Your task to perform on an android device: open a bookmark in the chrome app Image 0: 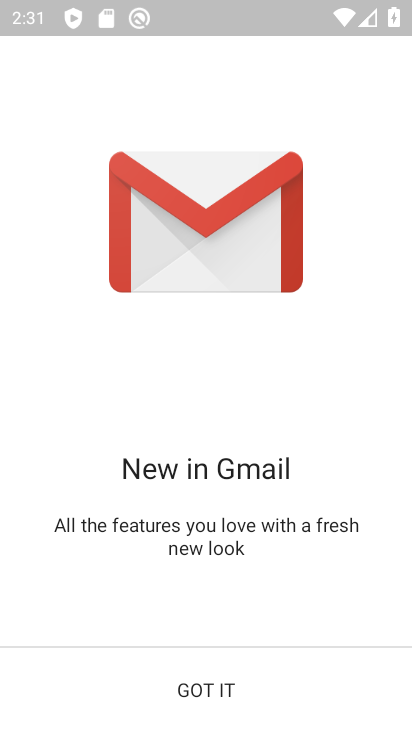
Step 0: click (202, 700)
Your task to perform on an android device: open a bookmark in the chrome app Image 1: 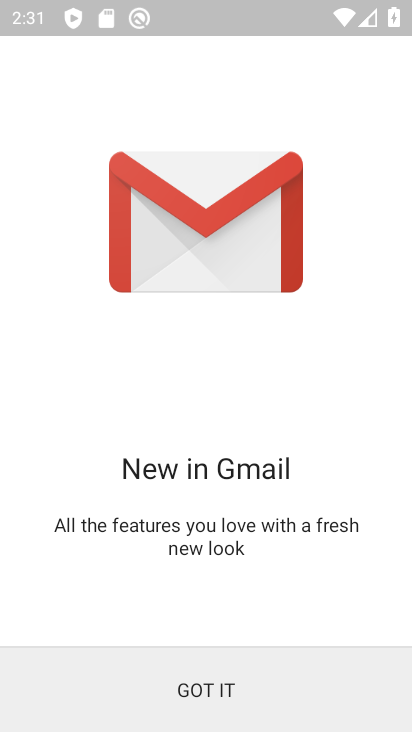
Step 1: click (202, 700)
Your task to perform on an android device: open a bookmark in the chrome app Image 2: 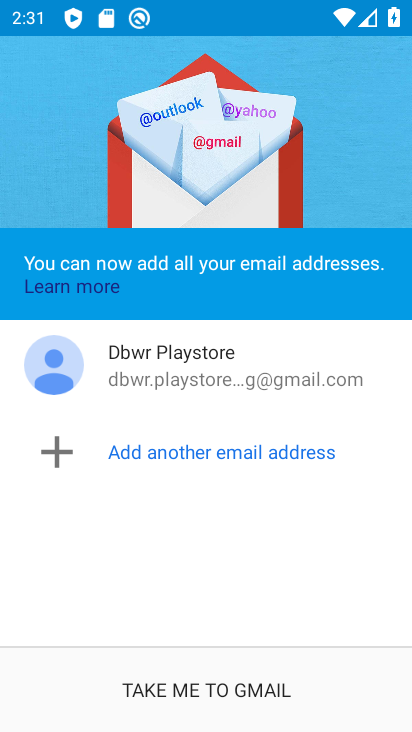
Step 2: press home button
Your task to perform on an android device: open a bookmark in the chrome app Image 3: 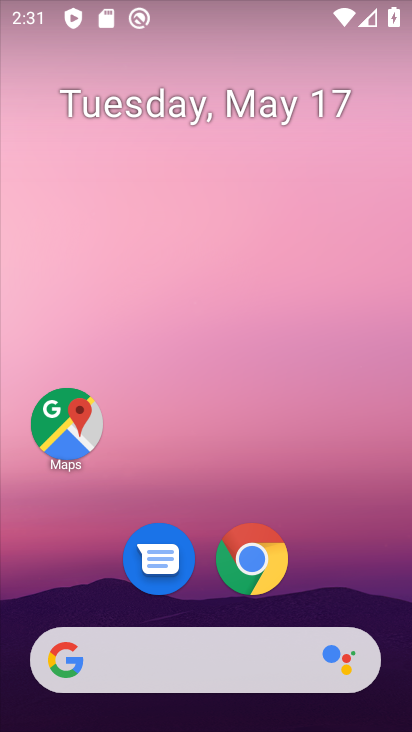
Step 3: click (280, 553)
Your task to perform on an android device: open a bookmark in the chrome app Image 4: 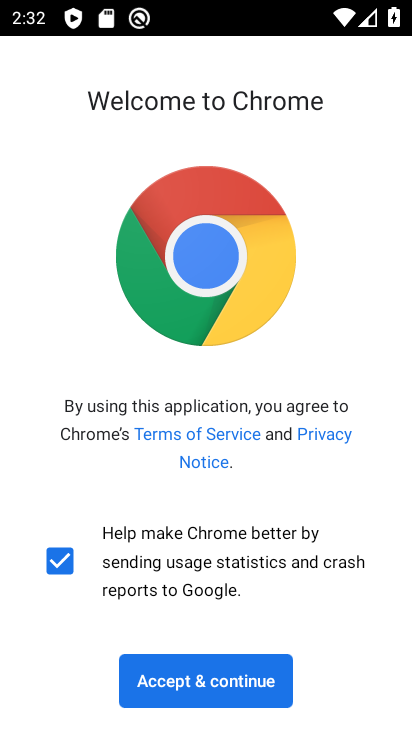
Step 4: click (233, 696)
Your task to perform on an android device: open a bookmark in the chrome app Image 5: 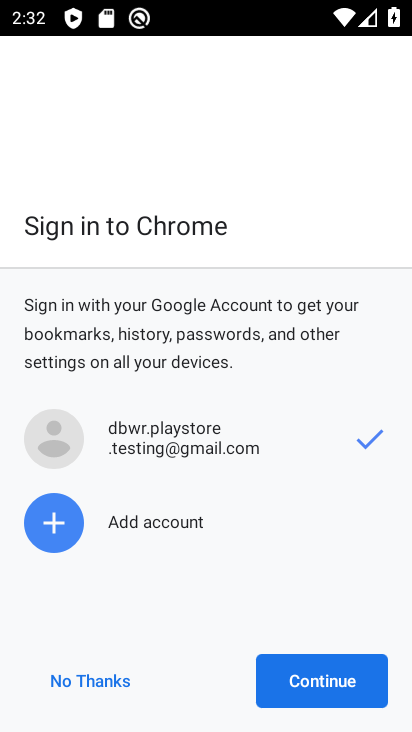
Step 5: click (292, 695)
Your task to perform on an android device: open a bookmark in the chrome app Image 6: 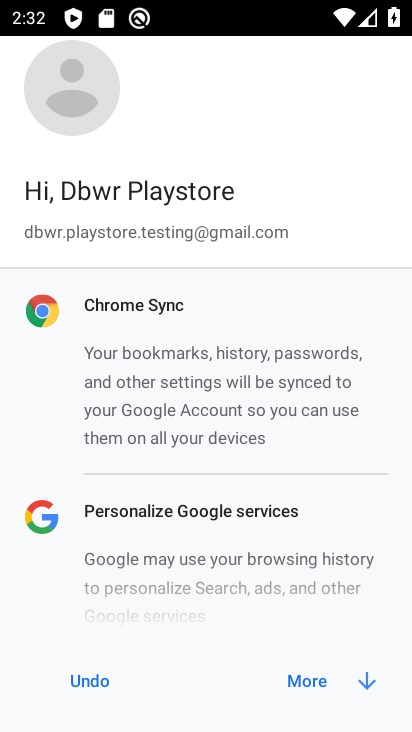
Step 6: click (306, 681)
Your task to perform on an android device: open a bookmark in the chrome app Image 7: 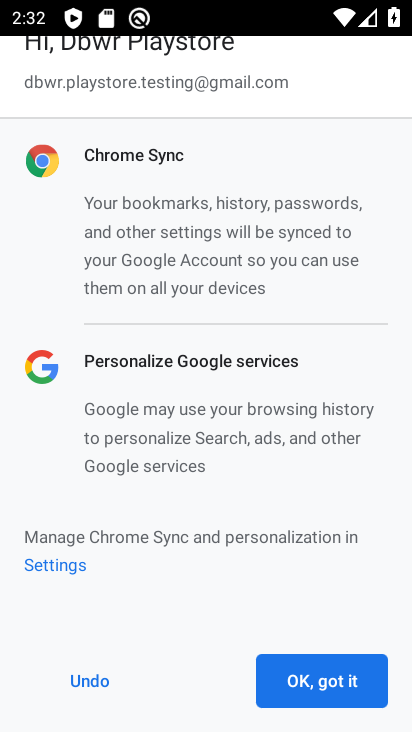
Step 7: click (322, 679)
Your task to perform on an android device: open a bookmark in the chrome app Image 8: 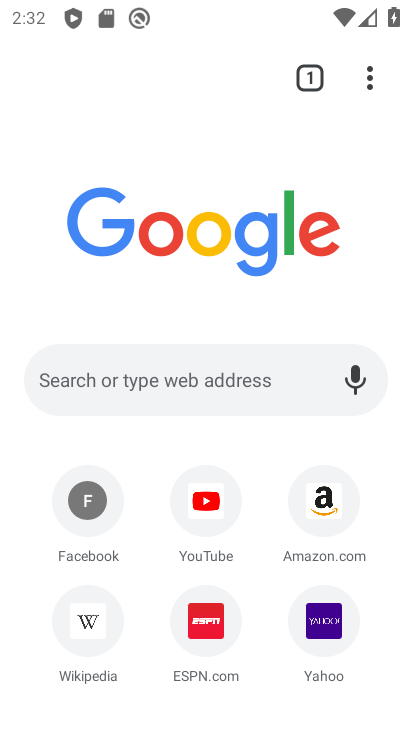
Step 8: click (384, 75)
Your task to perform on an android device: open a bookmark in the chrome app Image 9: 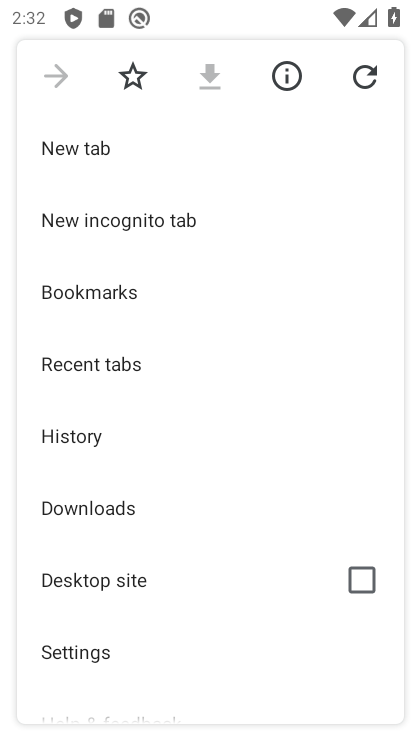
Step 9: click (312, 287)
Your task to perform on an android device: open a bookmark in the chrome app Image 10: 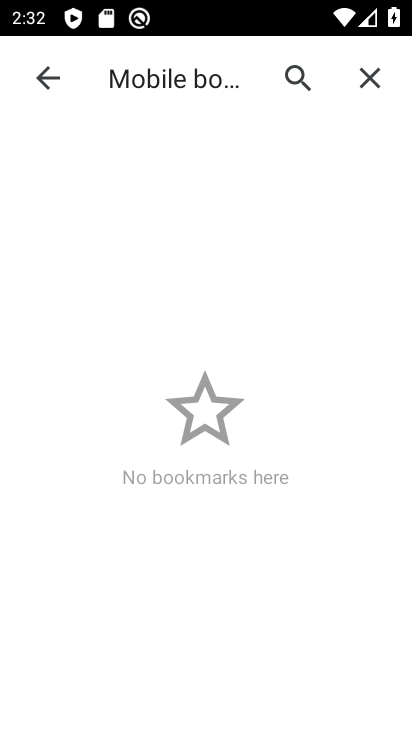
Step 10: task complete